Your task to perform on an android device: Open settings on Google Maps Image 0: 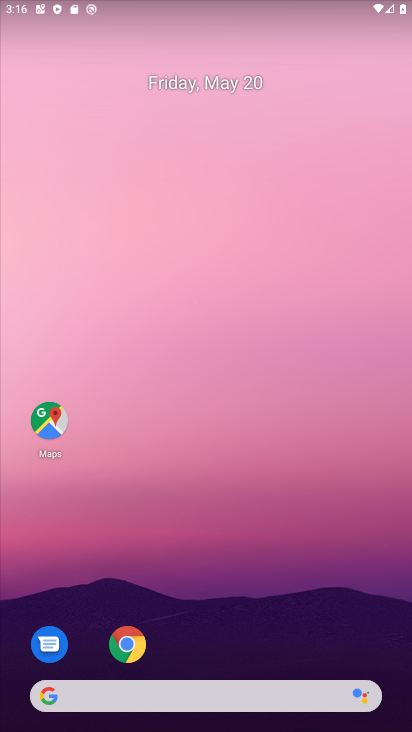
Step 0: click (58, 427)
Your task to perform on an android device: Open settings on Google Maps Image 1: 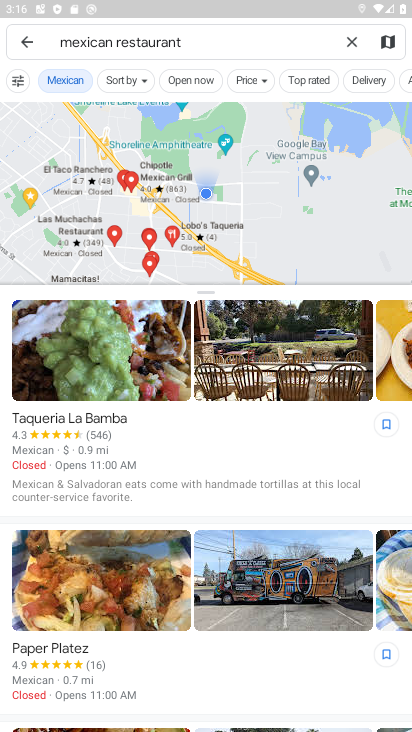
Step 1: click (342, 43)
Your task to perform on an android device: Open settings on Google Maps Image 2: 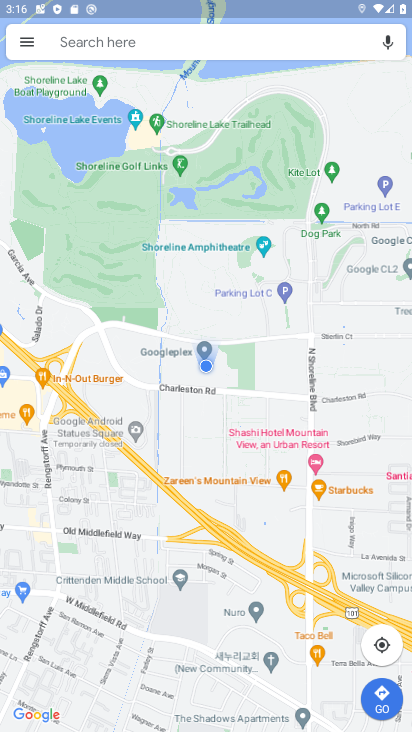
Step 2: click (17, 39)
Your task to perform on an android device: Open settings on Google Maps Image 3: 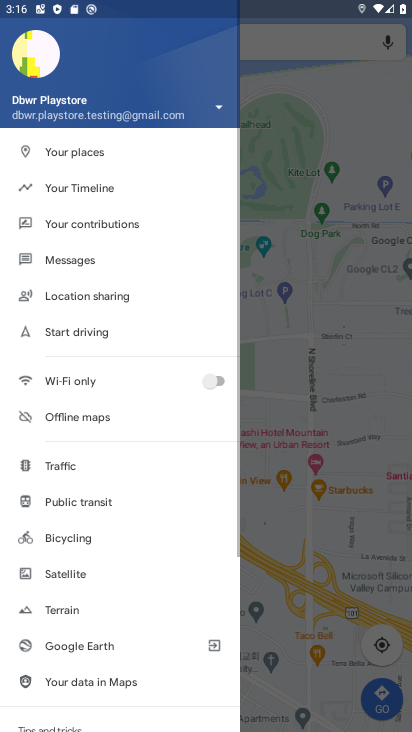
Step 3: click (17, 39)
Your task to perform on an android device: Open settings on Google Maps Image 4: 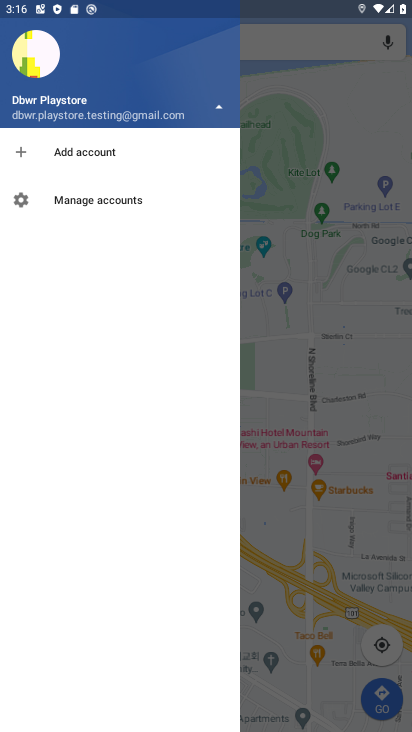
Step 4: click (147, 134)
Your task to perform on an android device: Open settings on Google Maps Image 5: 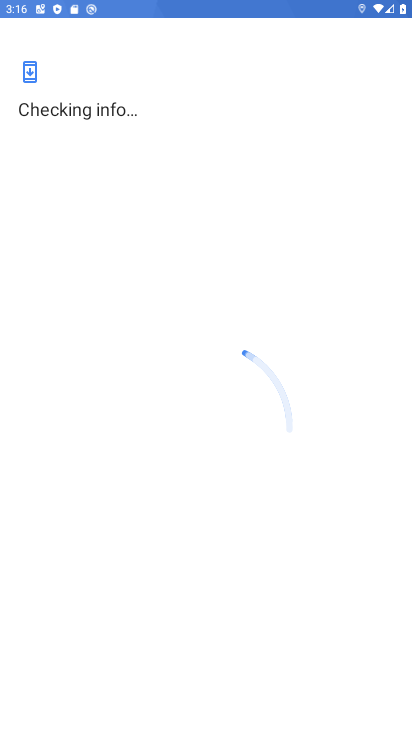
Step 5: click (147, 126)
Your task to perform on an android device: Open settings on Google Maps Image 6: 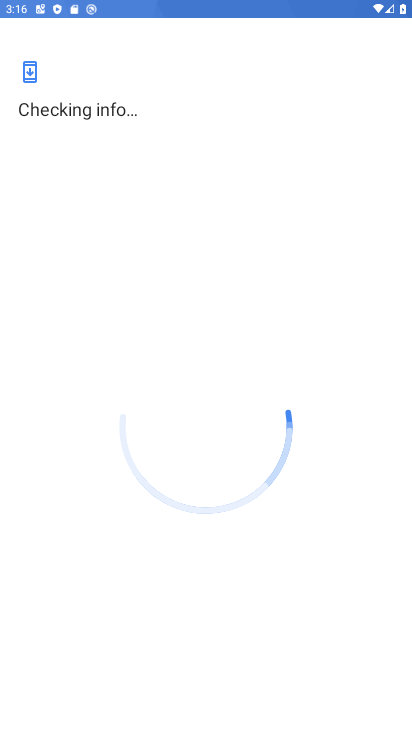
Step 6: task complete